Your task to perform on an android device: read, delete, or share a saved page in the chrome app Image 0: 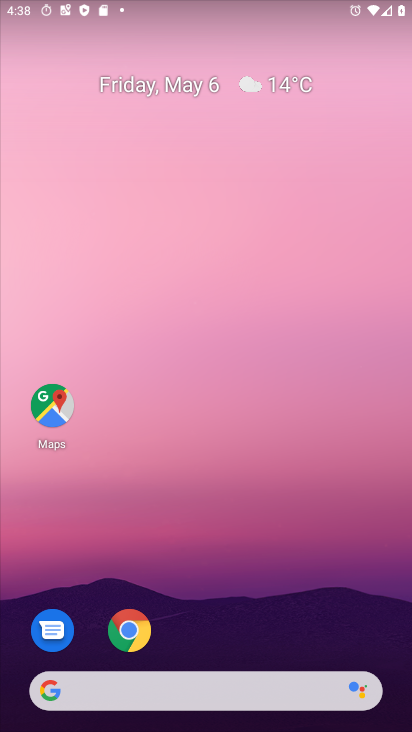
Step 0: click (129, 621)
Your task to perform on an android device: read, delete, or share a saved page in the chrome app Image 1: 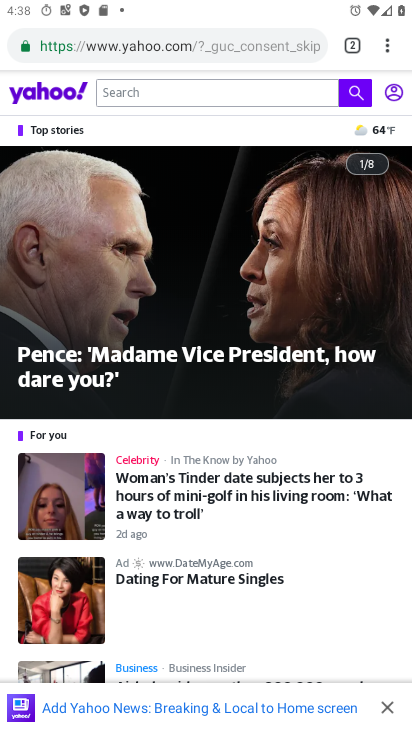
Step 1: click (391, 52)
Your task to perform on an android device: read, delete, or share a saved page in the chrome app Image 2: 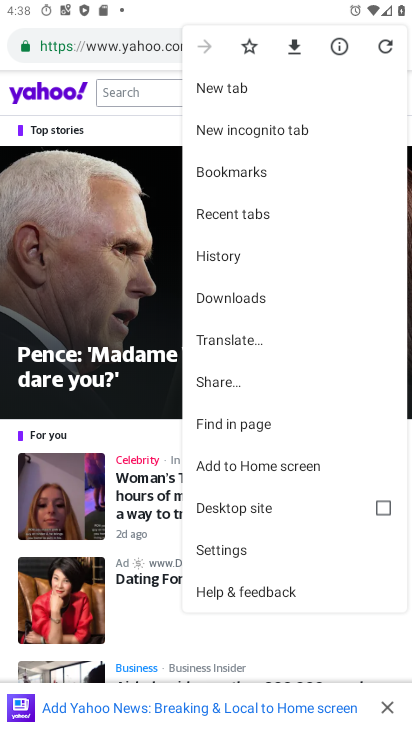
Step 2: click (266, 299)
Your task to perform on an android device: read, delete, or share a saved page in the chrome app Image 3: 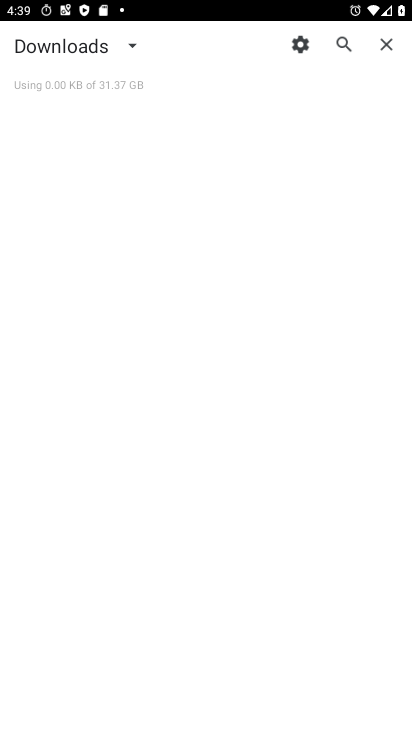
Step 3: task complete